Your task to perform on an android device: Open Yahoo.com Image 0: 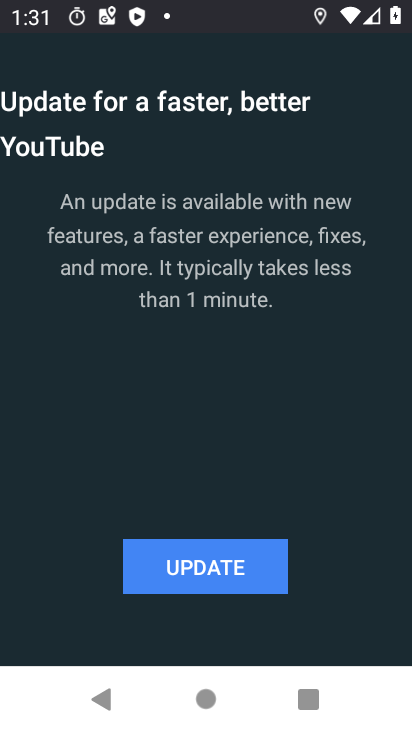
Step 0: press home button
Your task to perform on an android device: Open Yahoo.com Image 1: 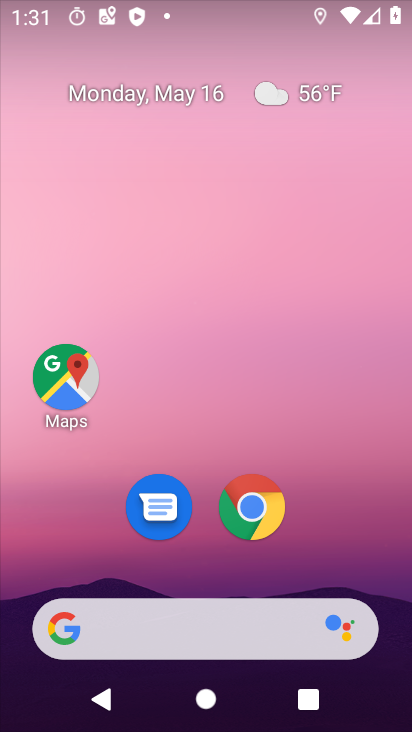
Step 1: click (253, 508)
Your task to perform on an android device: Open Yahoo.com Image 2: 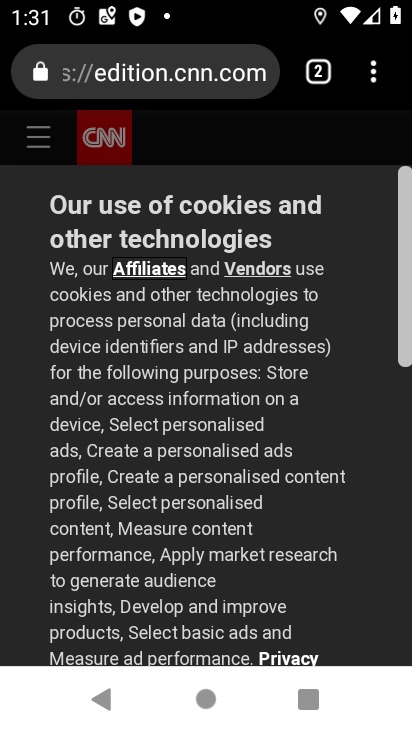
Step 2: click (286, 128)
Your task to perform on an android device: Open Yahoo.com Image 3: 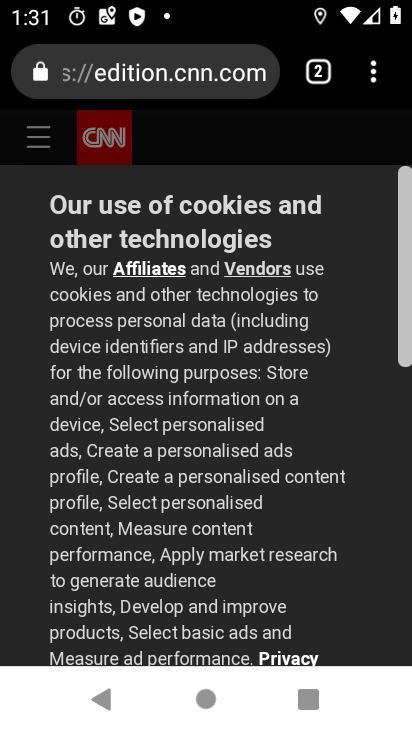
Step 3: drag from (190, 169) to (172, 451)
Your task to perform on an android device: Open Yahoo.com Image 4: 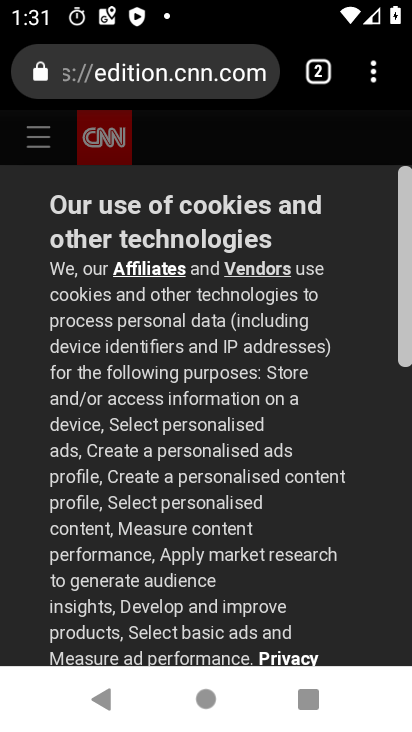
Step 4: click (229, 72)
Your task to perform on an android device: Open Yahoo.com Image 5: 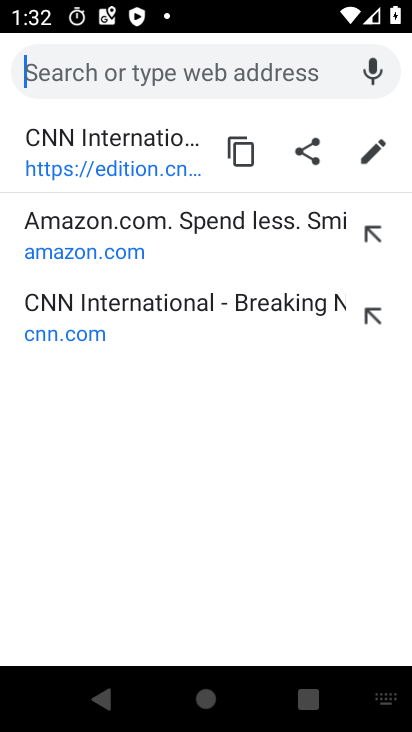
Step 5: type "yahoo.com"
Your task to perform on an android device: Open Yahoo.com Image 6: 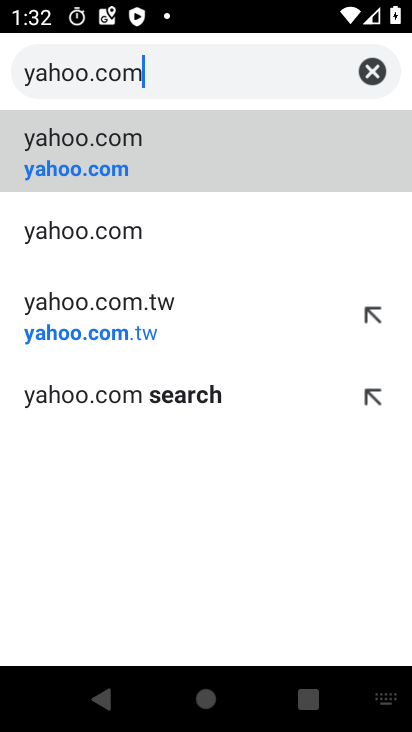
Step 6: click (124, 147)
Your task to perform on an android device: Open Yahoo.com Image 7: 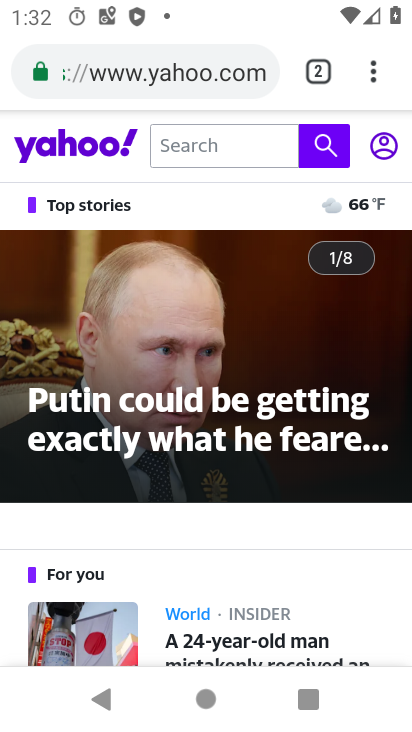
Step 7: task complete